Your task to perform on an android device: Play the last video I watched on Youtube Image 0: 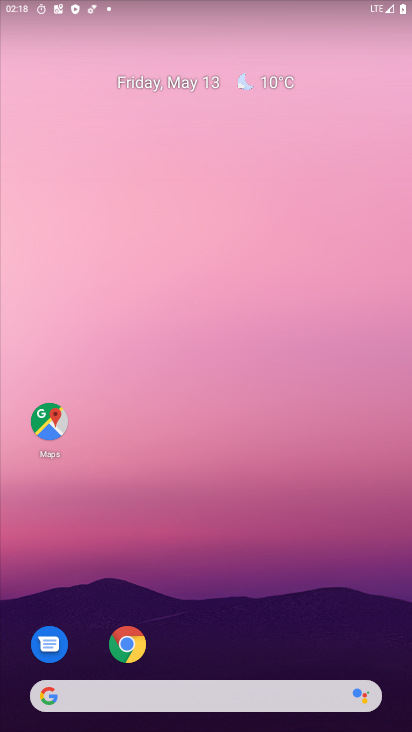
Step 0: drag from (302, 679) to (352, 1)
Your task to perform on an android device: Play the last video I watched on Youtube Image 1: 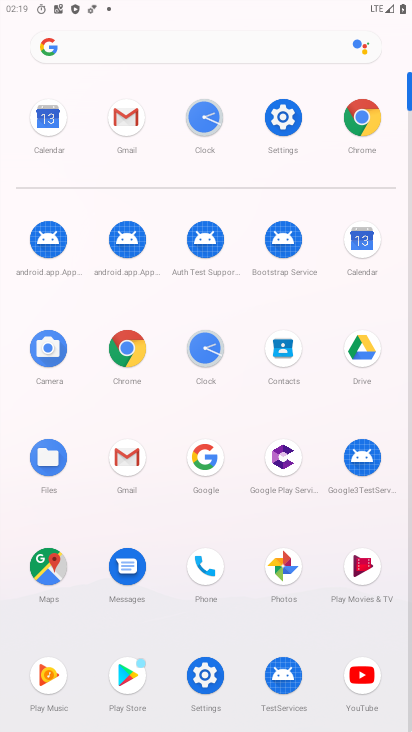
Step 1: click (357, 677)
Your task to perform on an android device: Play the last video I watched on Youtube Image 2: 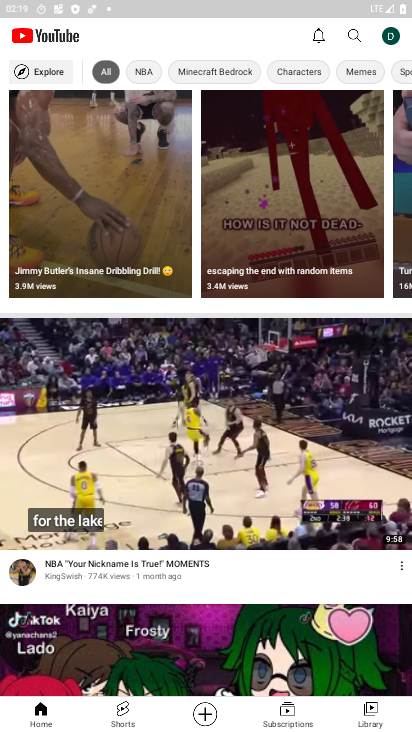
Step 2: click (367, 719)
Your task to perform on an android device: Play the last video I watched on Youtube Image 3: 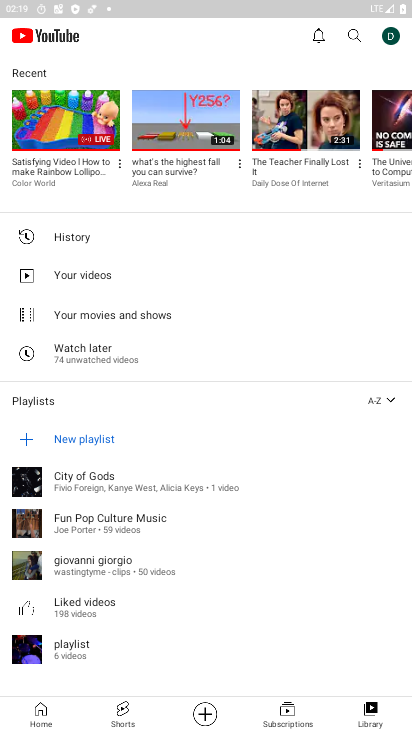
Step 3: click (83, 107)
Your task to perform on an android device: Play the last video I watched on Youtube Image 4: 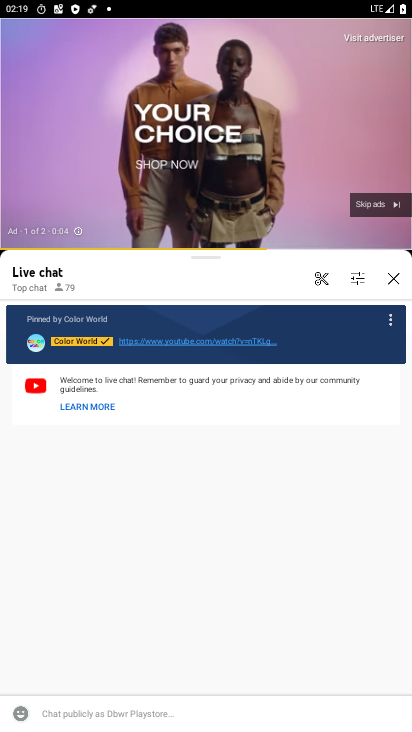
Step 4: click (400, 202)
Your task to perform on an android device: Play the last video I watched on Youtube Image 5: 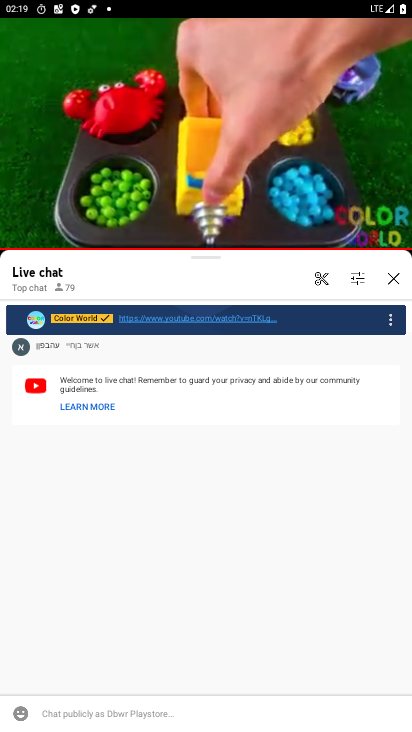
Step 5: task complete